Your task to perform on an android device: turn off airplane mode Image 0: 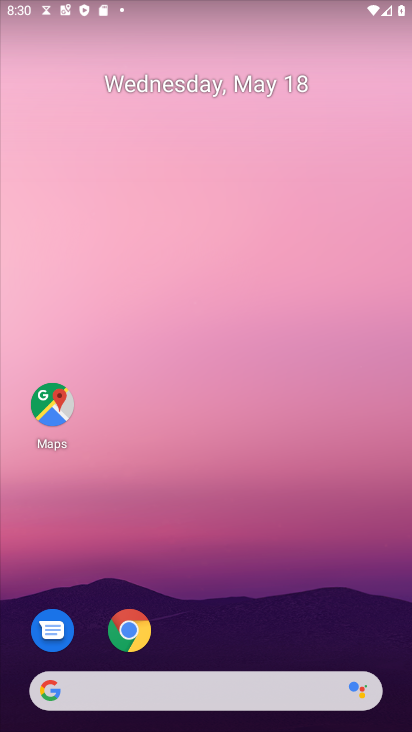
Step 0: drag from (156, 688) to (316, 227)
Your task to perform on an android device: turn off airplane mode Image 1: 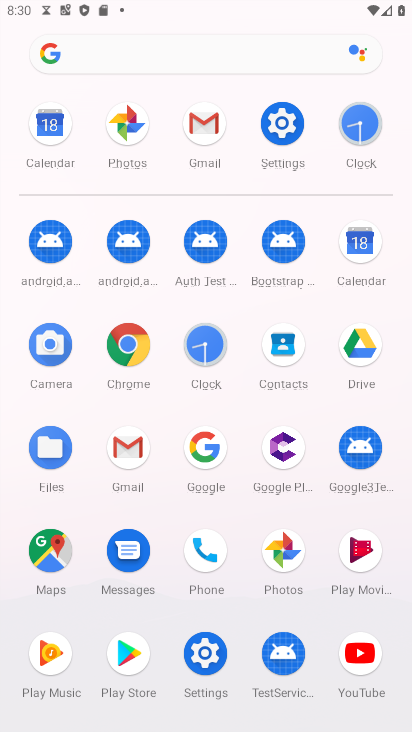
Step 1: click (285, 131)
Your task to perform on an android device: turn off airplane mode Image 2: 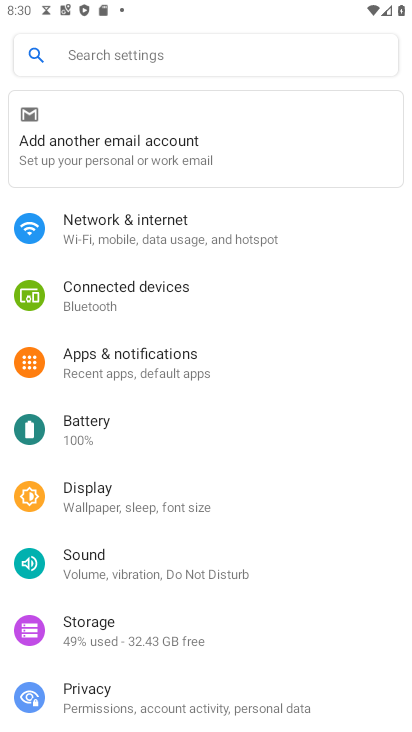
Step 2: click (134, 228)
Your task to perform on an android device: turn off airplane mode Image 3: 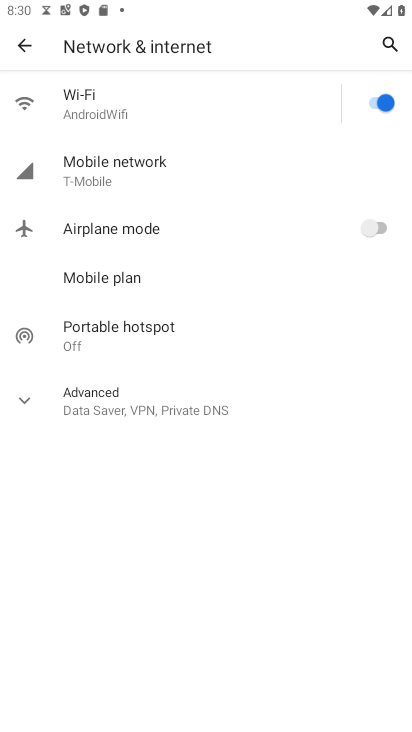
Step 3: task complete